Your task to perform on an android device: Check the news Image 0: 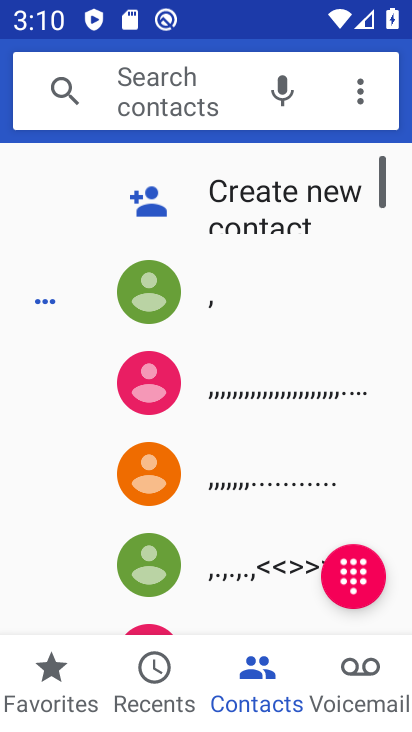
Step 0: press home button
Your task to perform on an android device: Check the news Image 1: 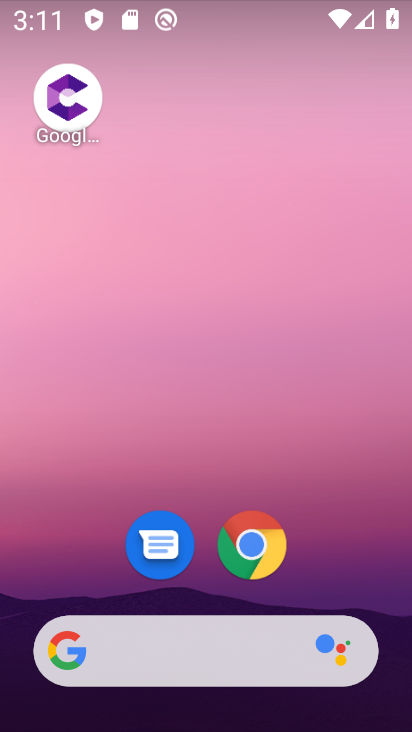
Step 1: task complete